Your task to perform on an android device: turn on airplane mode Image 0: 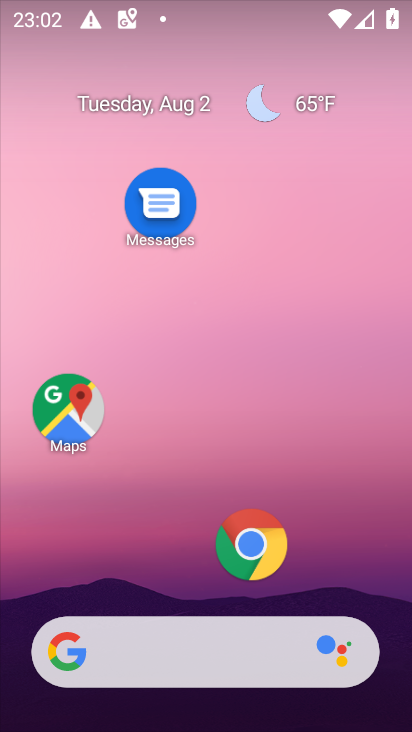
Step 0: drag from (186, 578) to (202, 172)
Your task to perform on an android device: turn on airplane mode Image 1: 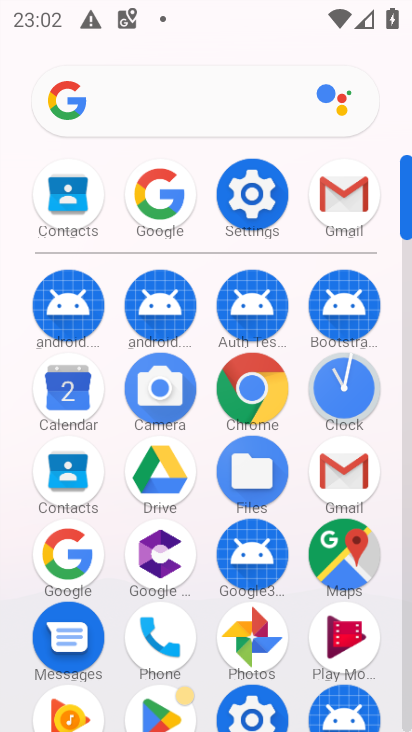
Step 1: click (245, 207)
Your task to perform on an android device: turn on airplane mode Image 2: 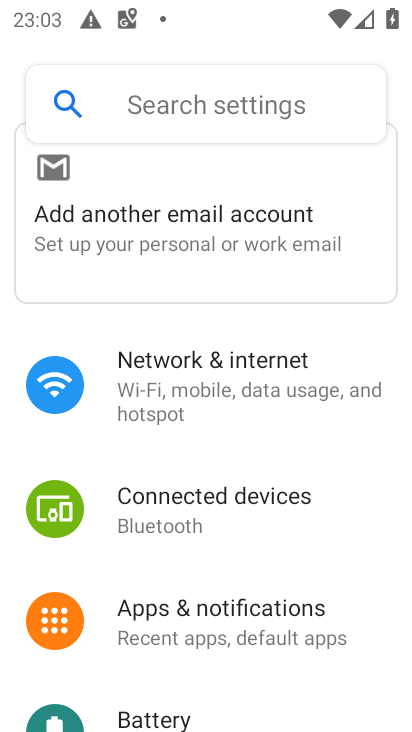
Step 2: click (191, 401)
Your task to perform on an android device: turn on airplane mode Image 3: 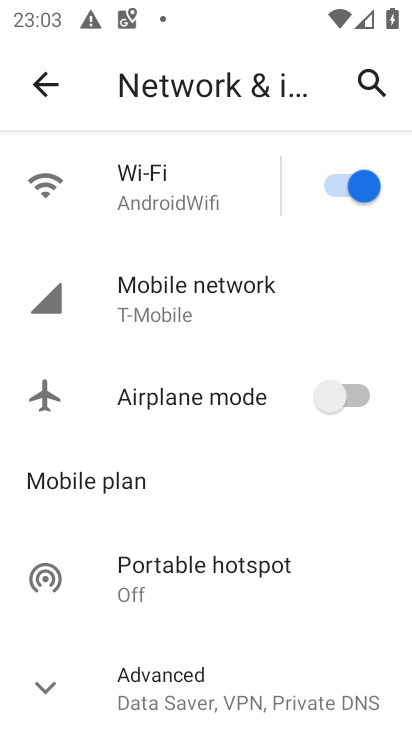
Step 3: click (355, 397)
Your task to perform on an android device: turn on airplane mode Image 4: 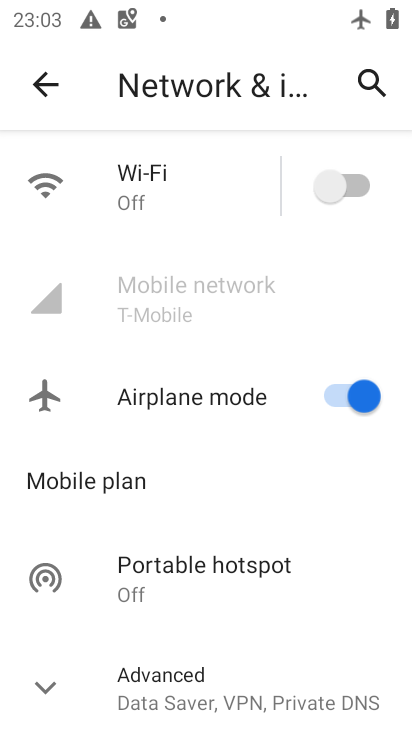
Step 4: task complete